Your task to perform on an android device: change the clock display to digital Image 0: 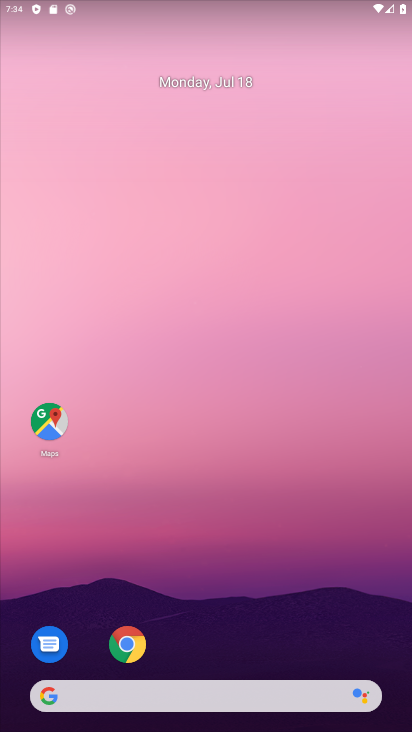
Step 0: drag from (259, 692) to (178, 279)
Your task to perform on an android device: change the clock display to digital Image 1: 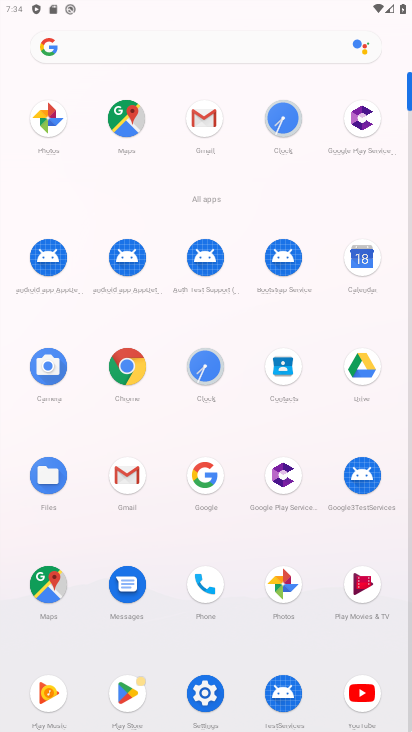
Step 1: click (196, 372)
Your task to perform on an android device: change the clock display to digital Image 2: 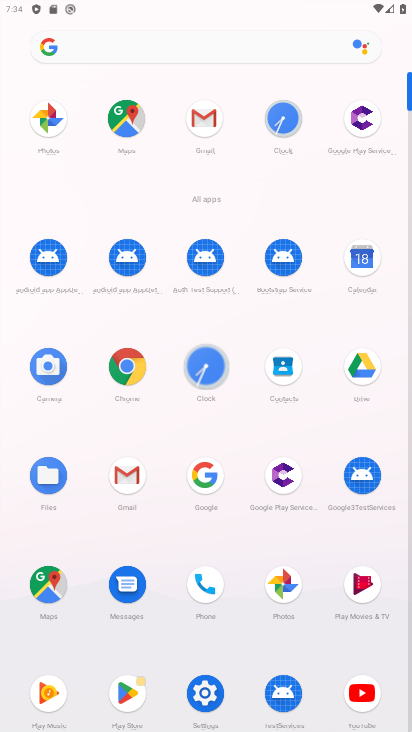
Step 2: click (201, 370)
Your task to perform on an android device: change the clock display to digital Image 3: 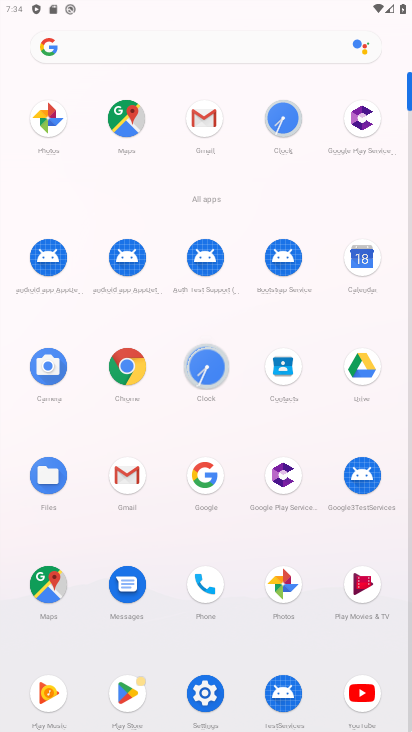
Step 3: click (201, 370)
Your task to perform on an android device: change the clock display to digital Image 4: 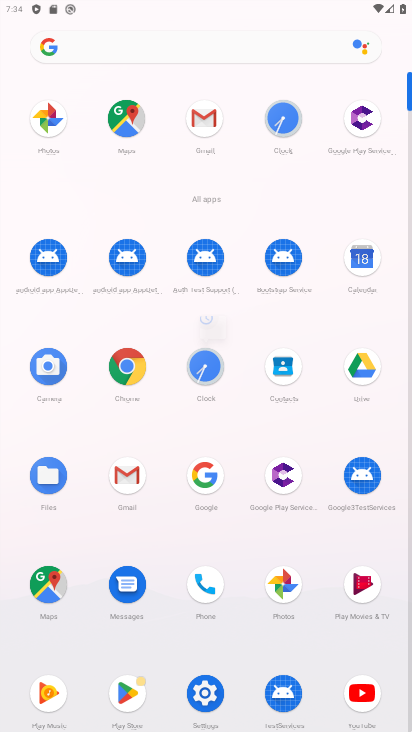
Step 4: click (203, 372)
Your task to perform on an android device: change the clock display to digital Image 5: 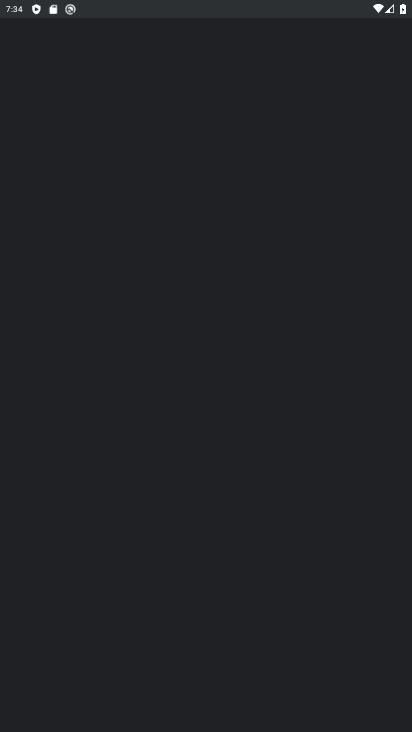
Step 5: click (207, 369)
Your task to perform on an android device: change the clock display to digital Image 6: 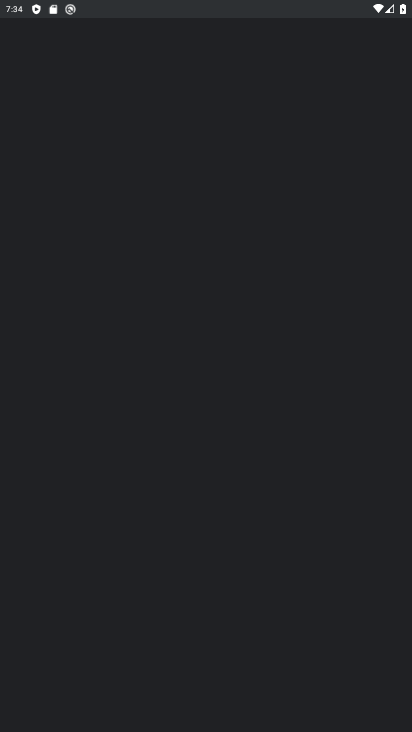
Step 6: click (207, 369)
Your task to perform on an android device: change the clock display to digital Image 7: 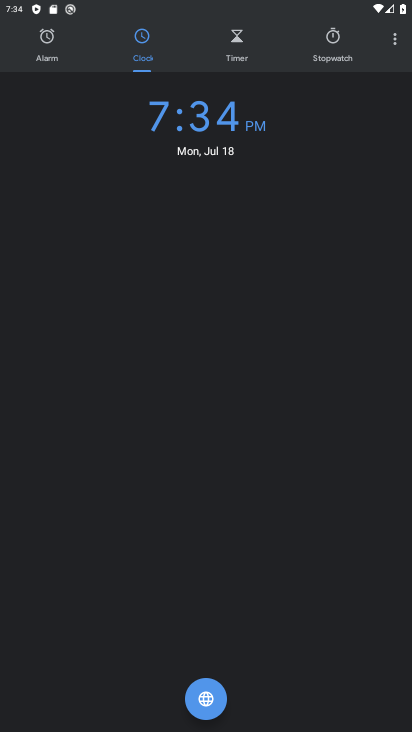
Step 7: click (392, 41)
Your task to perform on an android device: change the clock display to digital Image 8: 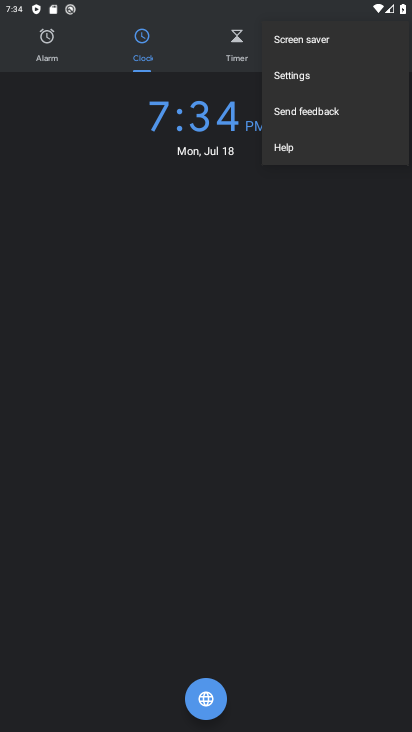
Step 8: click (297, 78)
Your task to perform on an android device: change the clock display to digital Image 9: 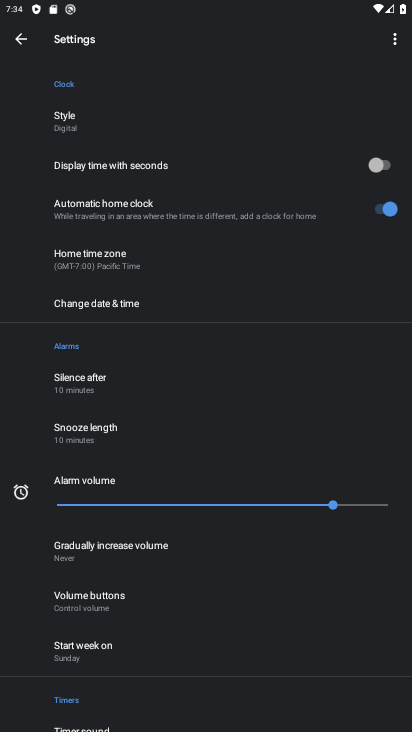
Step 9: click (96, 117)
Your task to perform on an android device: change the clock display to digital Image 10: 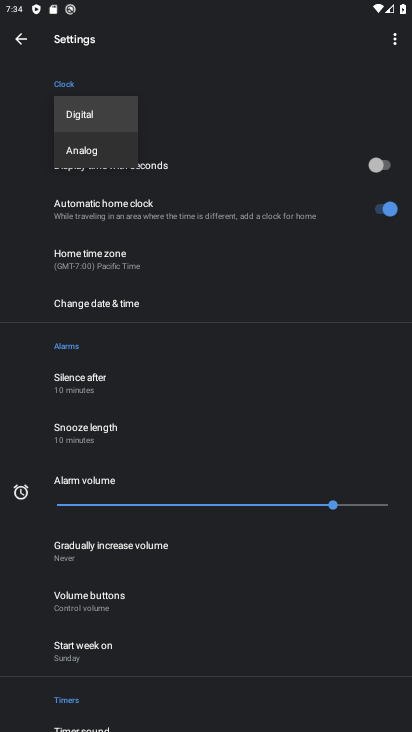
Step 10: click (99, 112)
Your task to perform on an android device: change the clock display to digital Image 11: 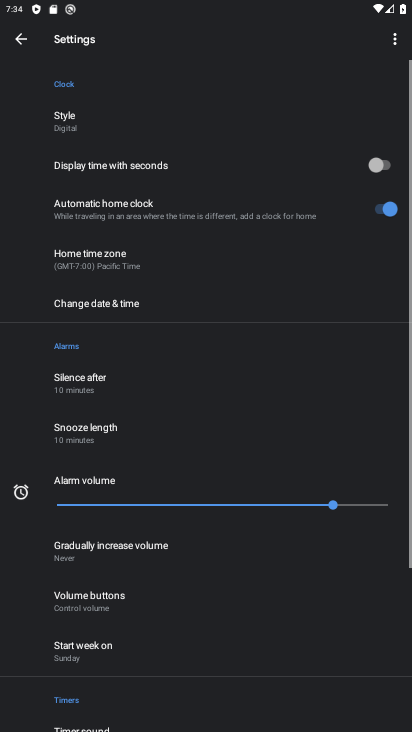
Step 11: task complete